Your task to perform on an android device: open app "PlayWell" (install if not already installed) Image 0: 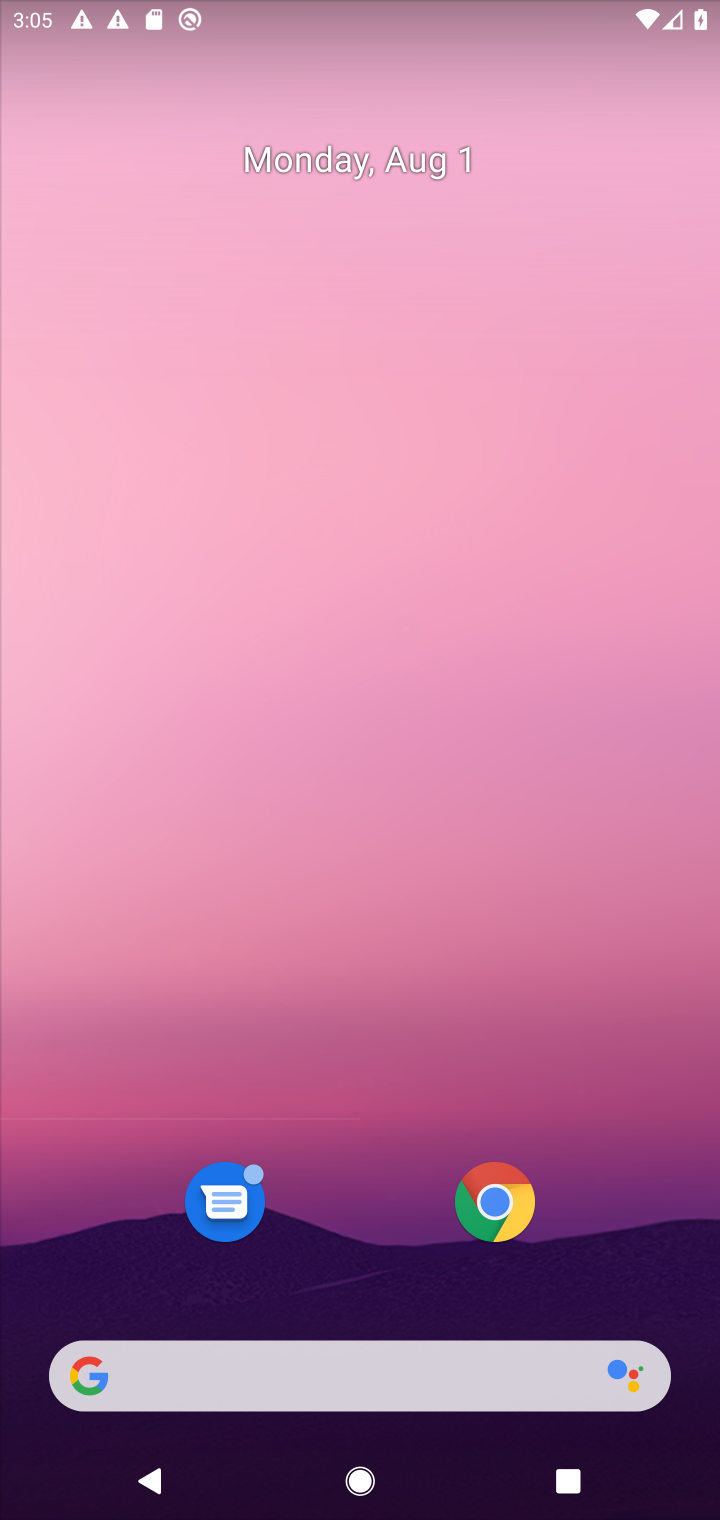
Step 0: press home button
Your task to perform on an android device: open app "PlayWell" (install if not already installed) Image 1: 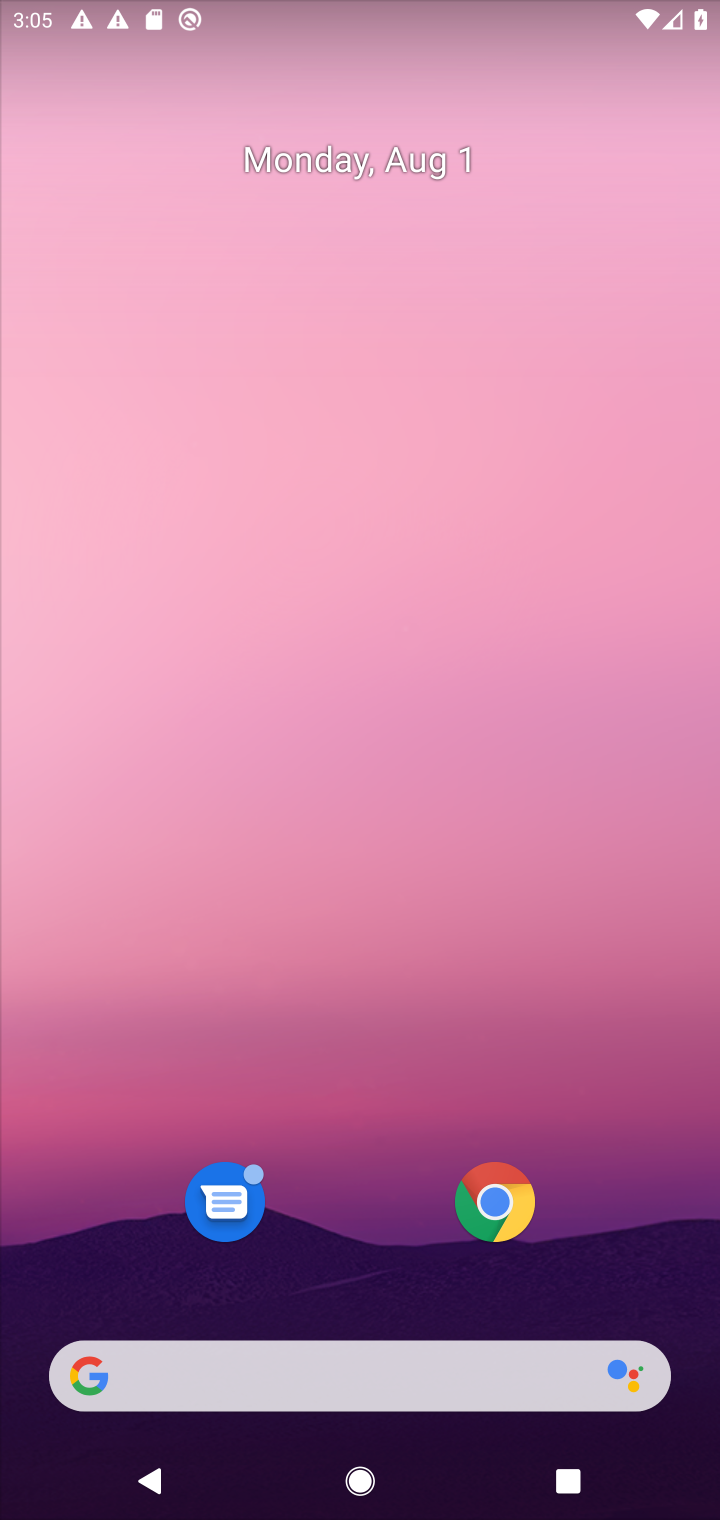
Step 1: drag from (602, 1087) to (624, 192)
Your task to perform on an android device: open app "PlayWell" (install if not already installed) Image 2: 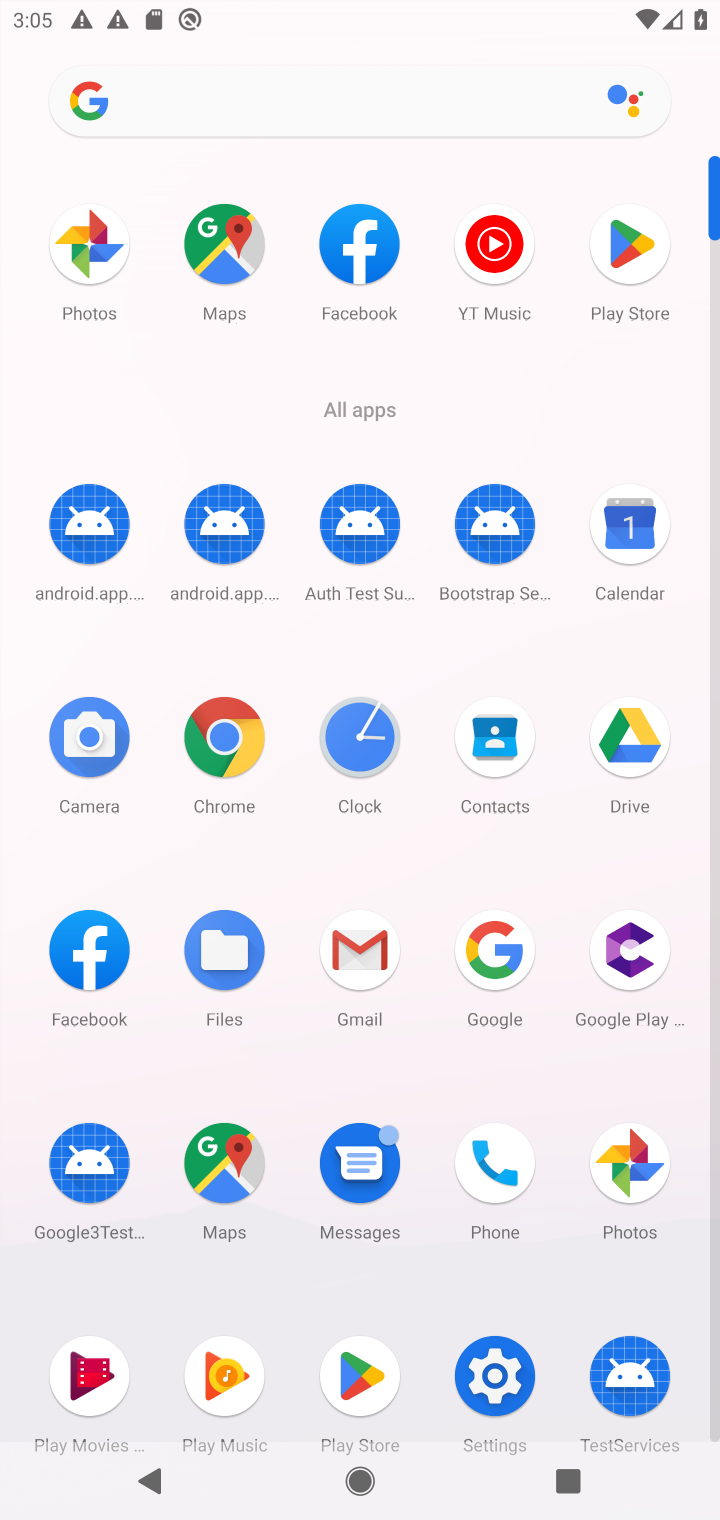
Step 2: click (643, 250)
Your task to perform on an android device: open app "PlayWell" (install if not already installed) Image 3: 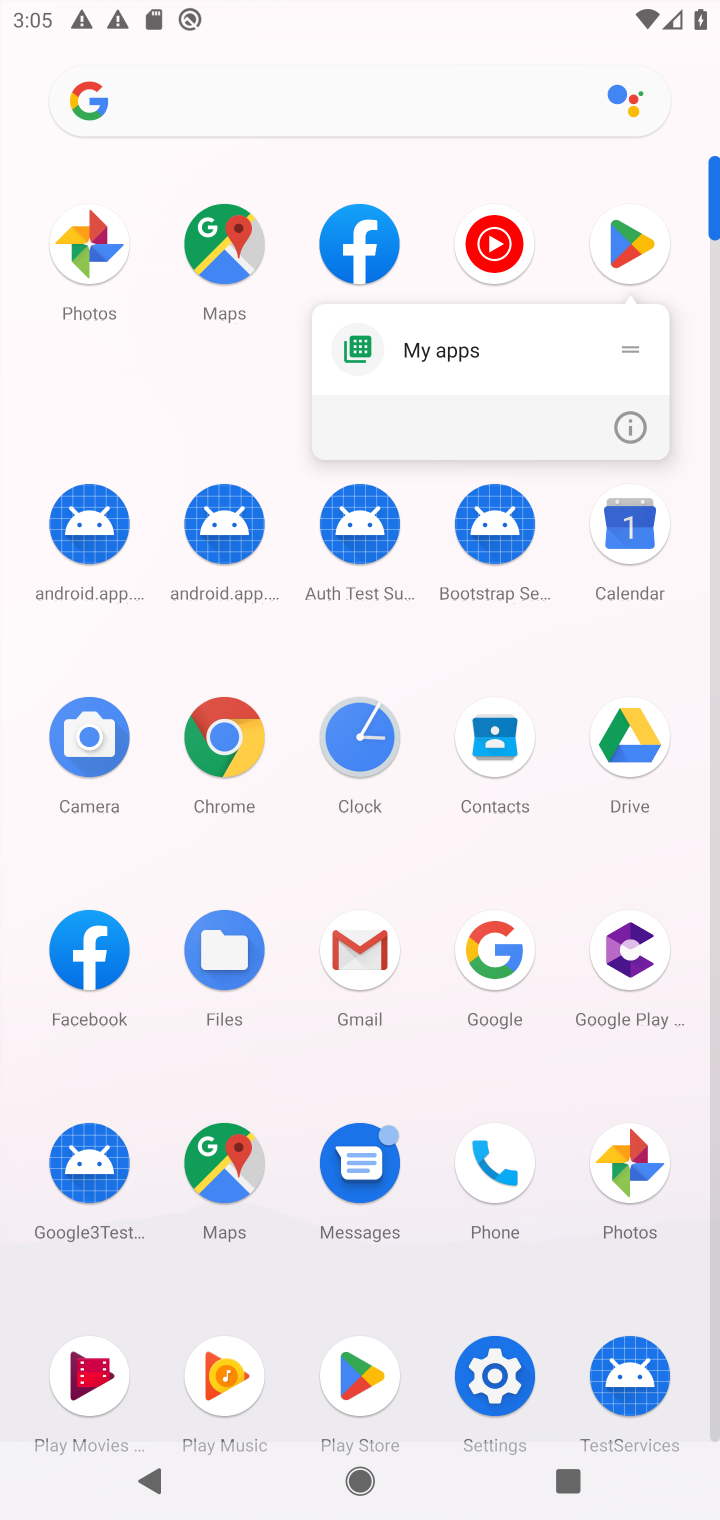
Step 3: click (641, 250)
Your task to perform on an android device: open app "PlayWell" (install if not already installed) Image 4: 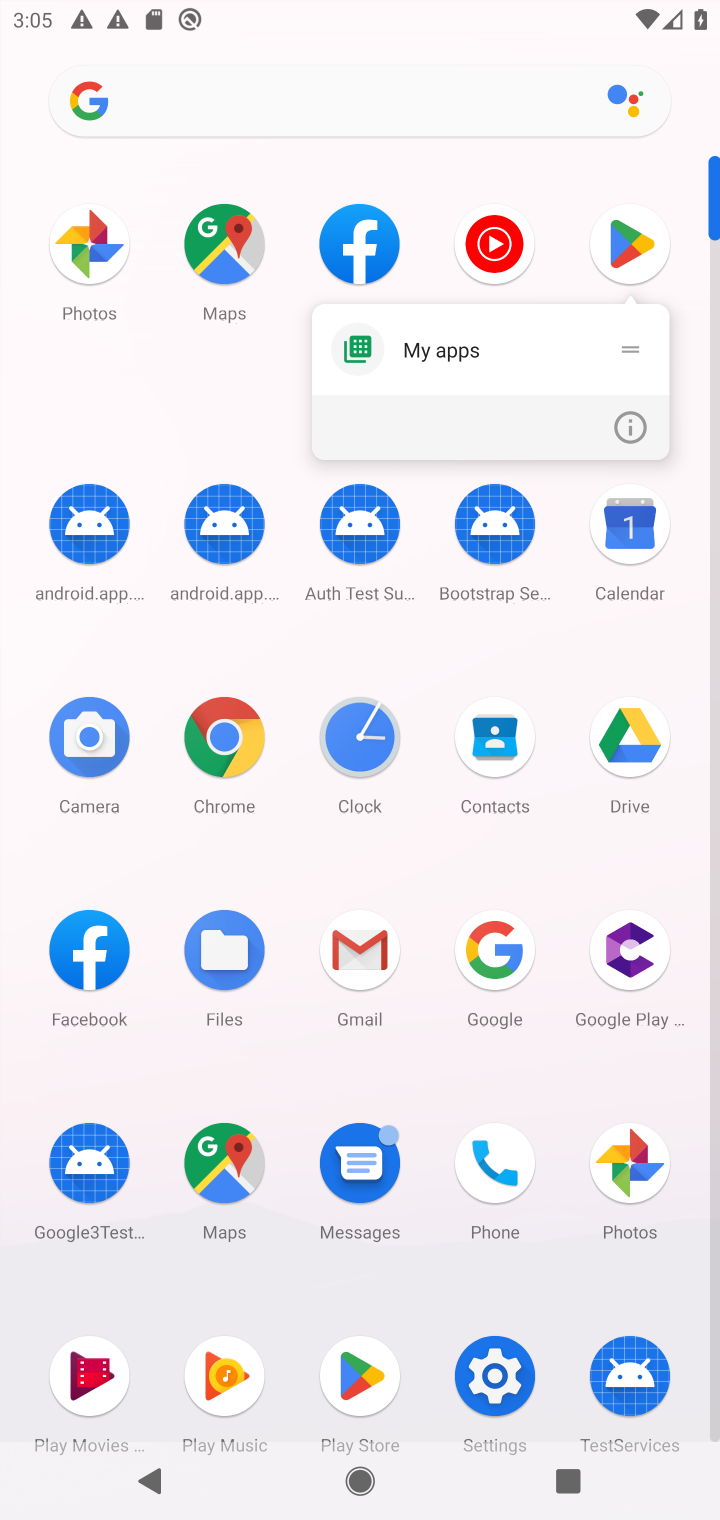
Step 4: click (353, 1377)
Your task to perform on an android device: open app "PlayWell" (install if not already installed) Image 5: 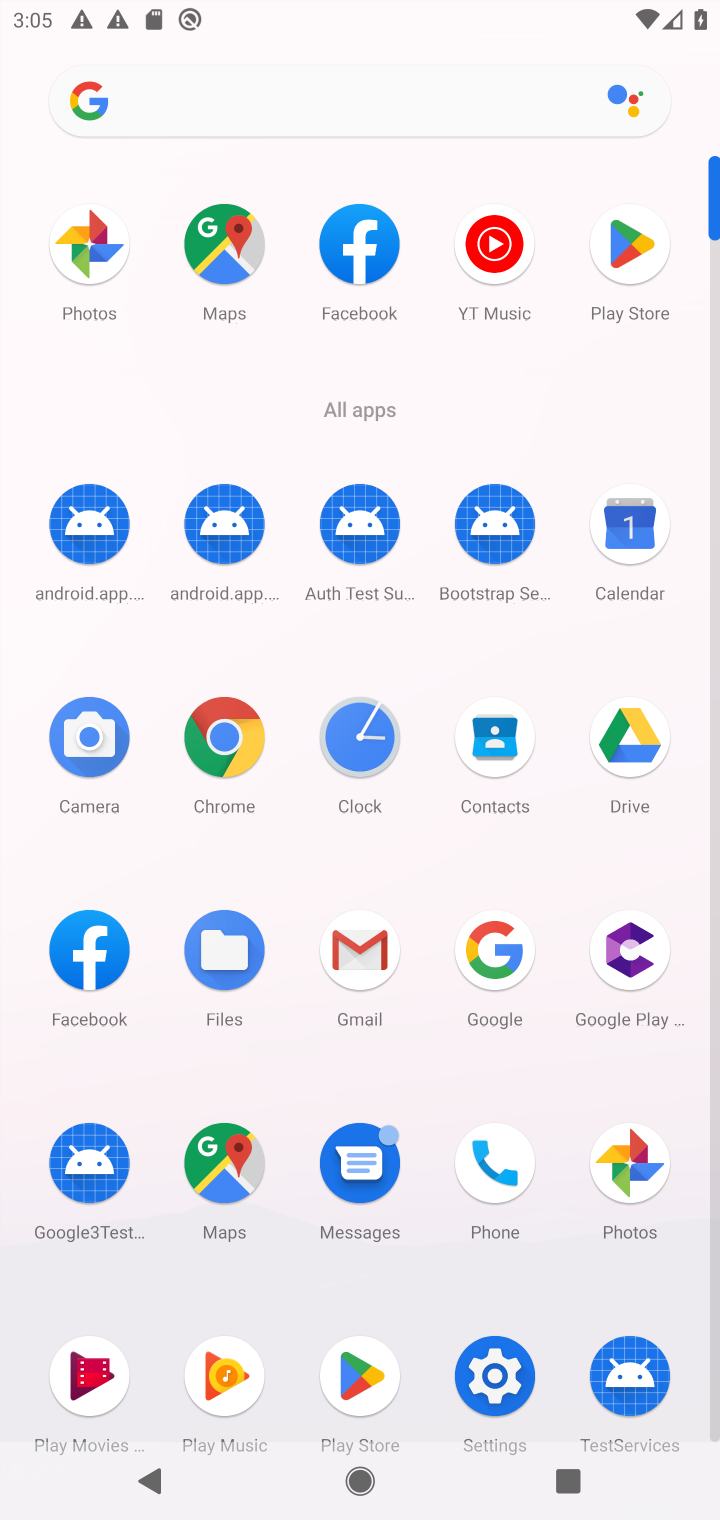
Step 5: click (355, 1361)
Your task to perform on an android device: open app "PlayWell" (install if not already installed) Image 6: 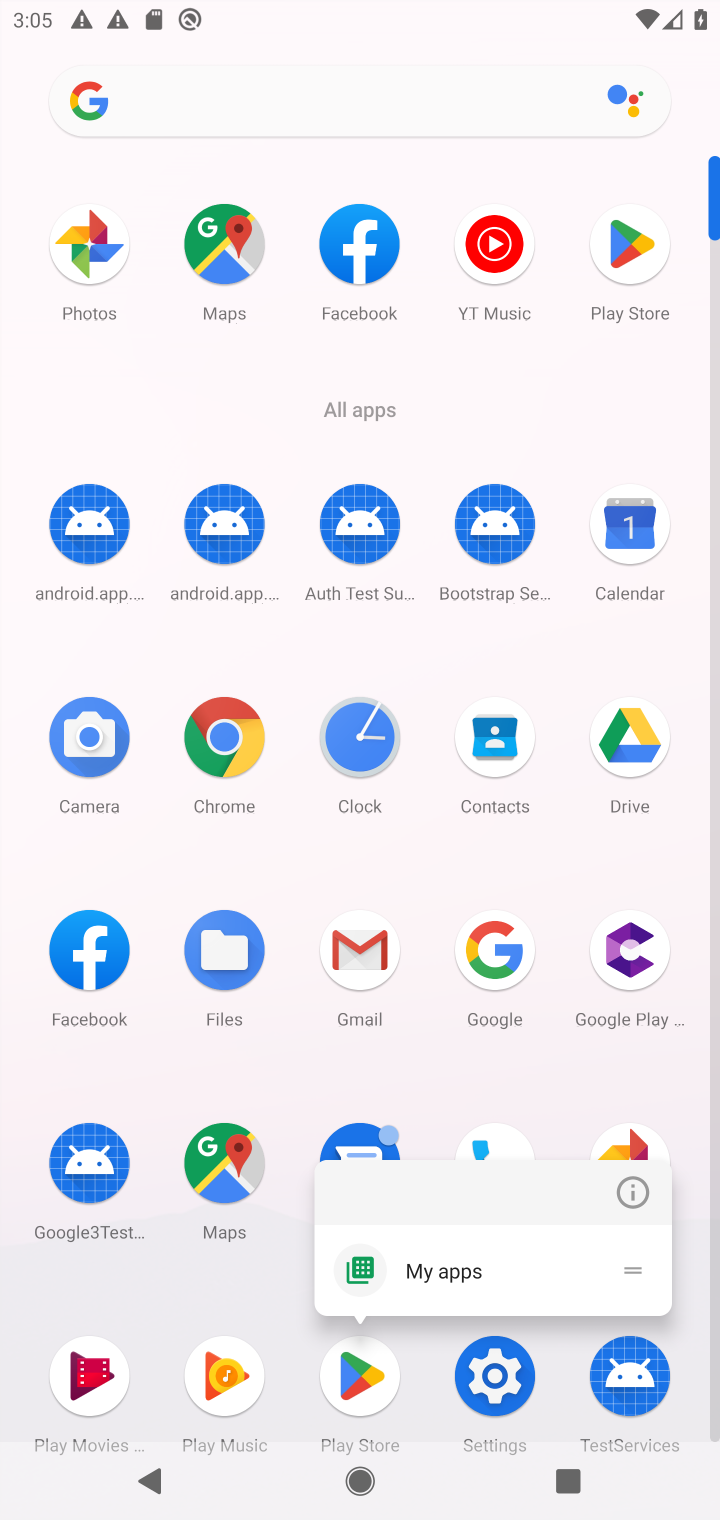
Step 6: click (359, 1379)
Your task to perform on an android device: open app "PlayWell" (install if not already installed) Image 7: 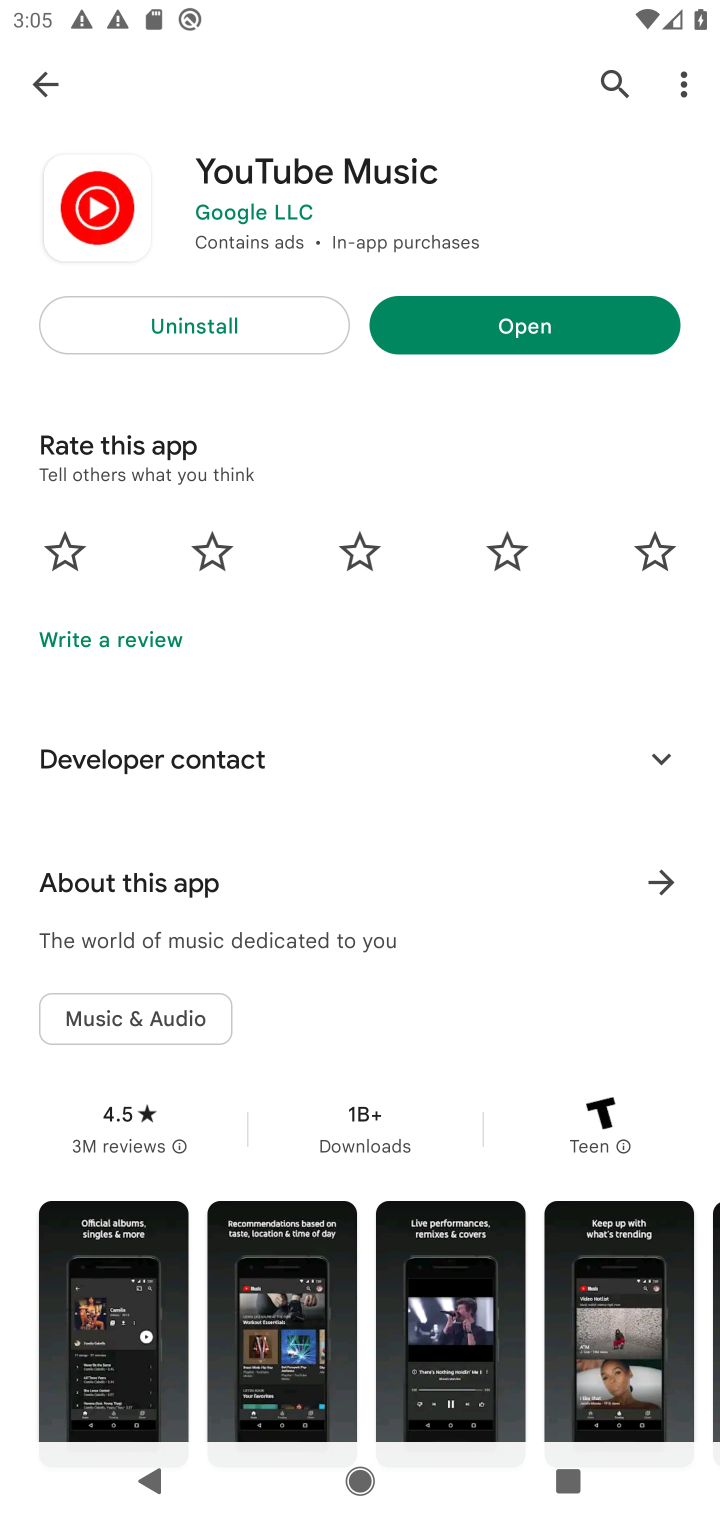
Step 7: click (608, 69)
Your task to perform on an android device: open app "PlayWell" (install if not already installed) Image 8: 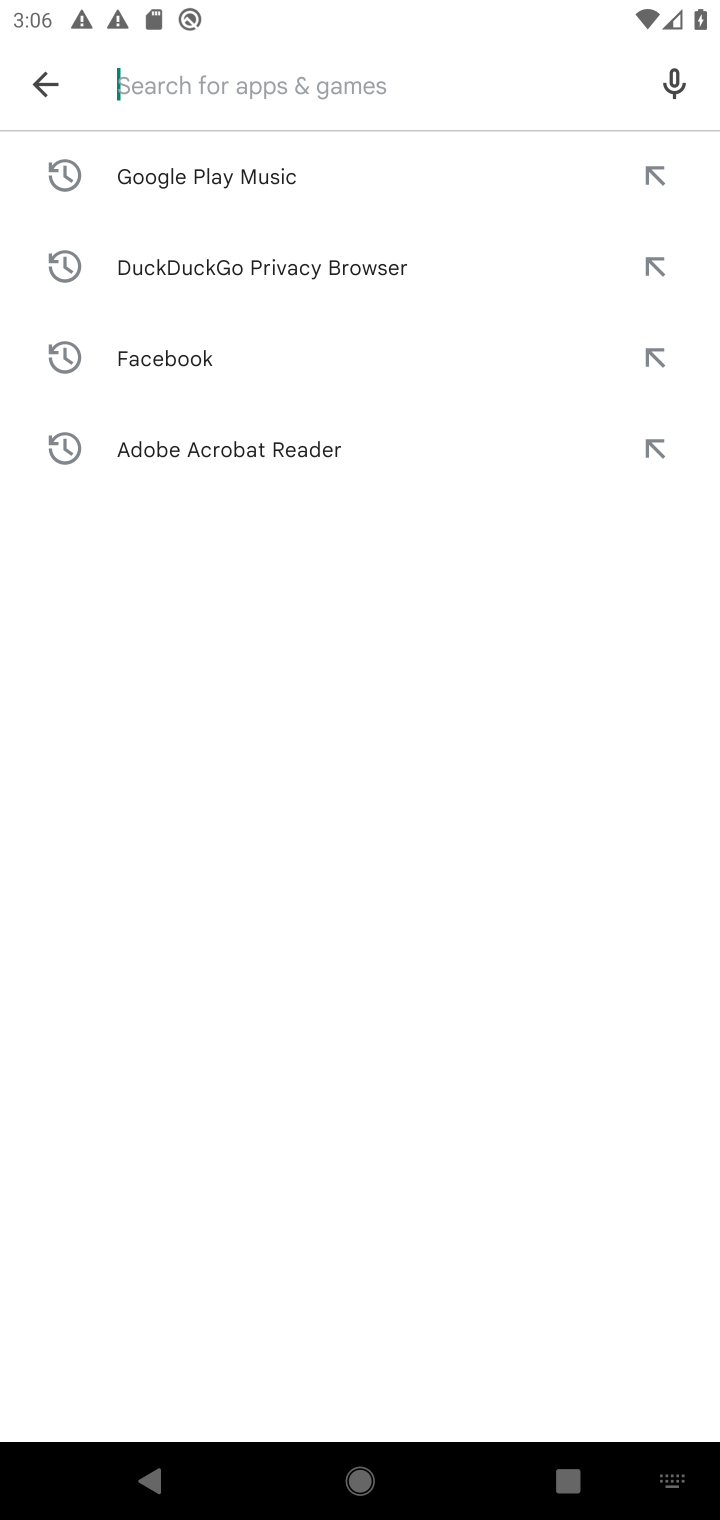
Step 8: type "PlayWell"
Your task to perform on an android device: open app "PlayWell" (install if not already installed) Image 9: 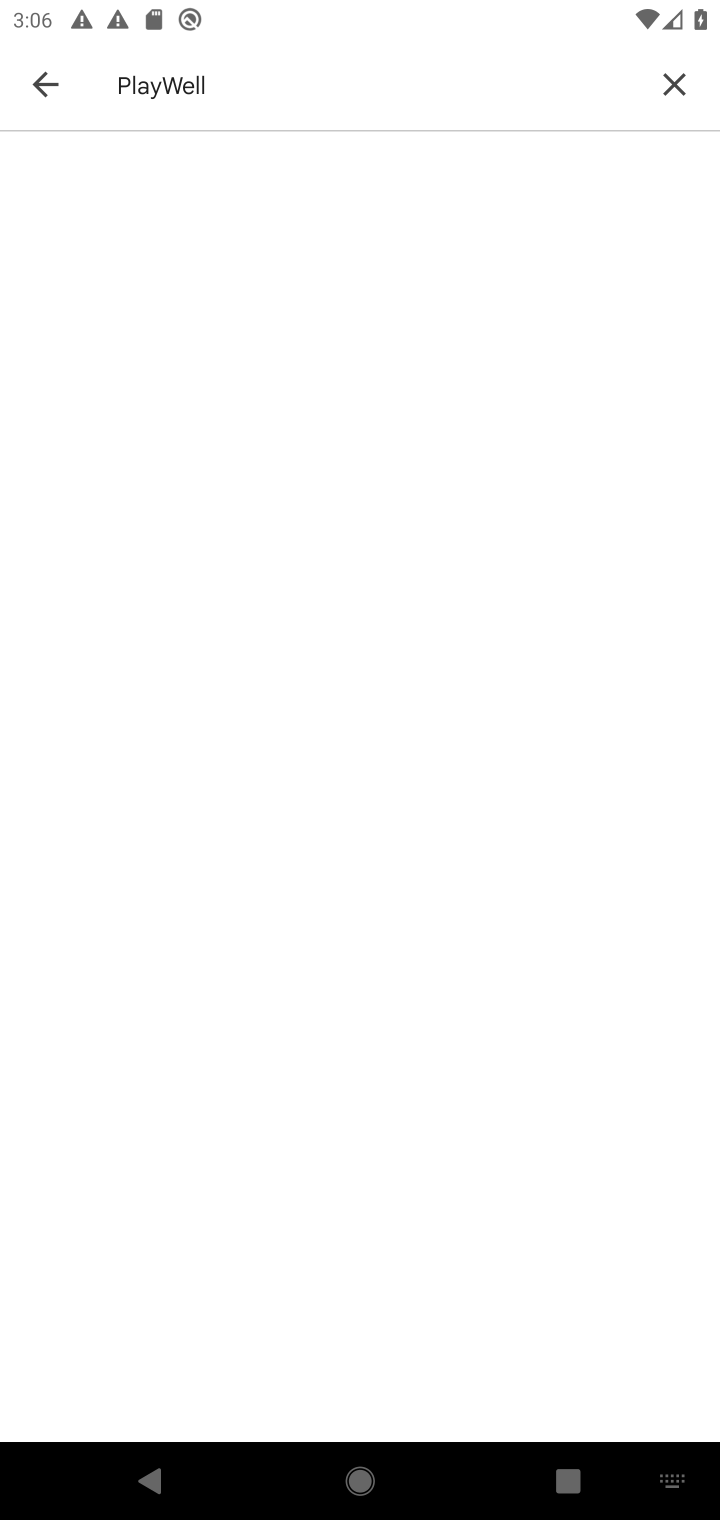
Step 9: press enter
Your task to perform on an android device: open app "PlayWell" (install if not already installed) Image 10: 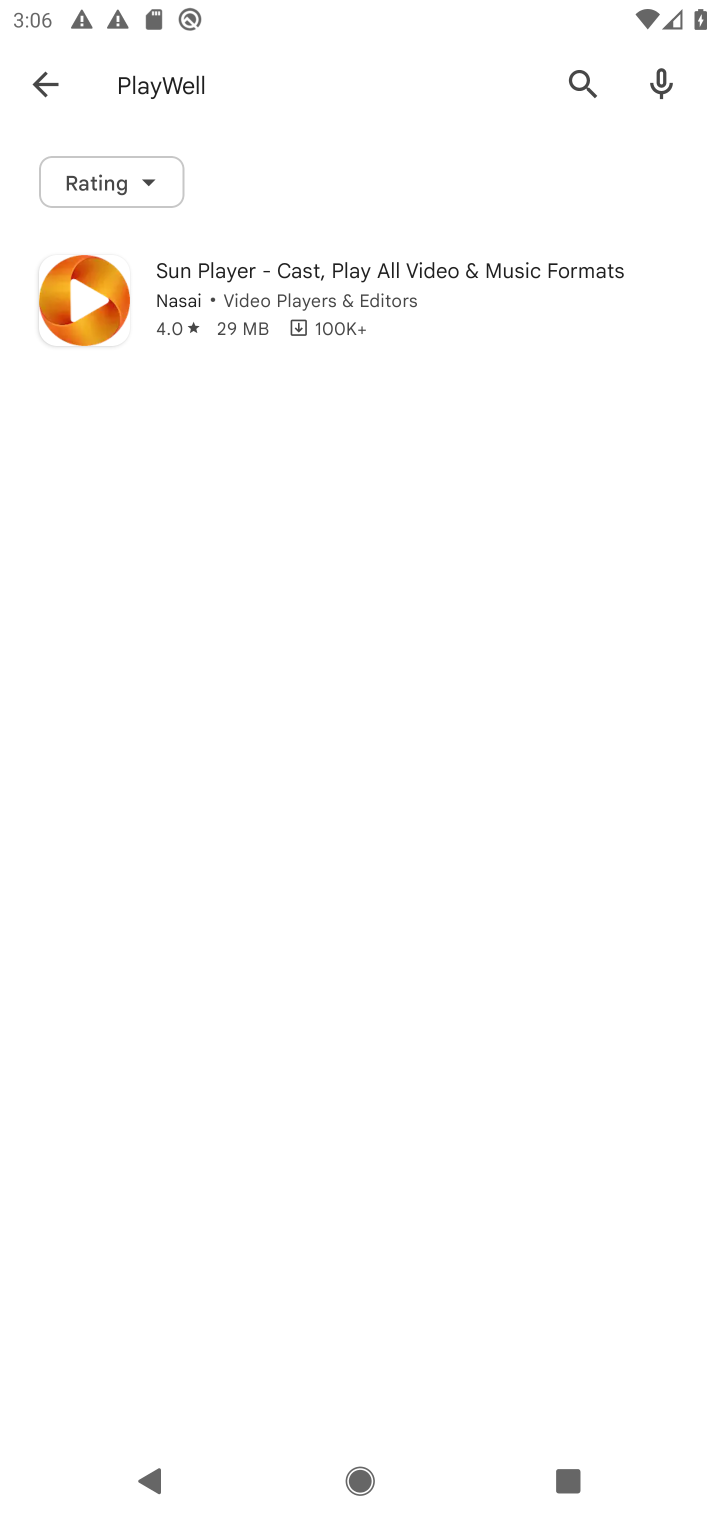
Step 10: task complete